Your task to perform on an android device: Go to accessibility settings Image 0: 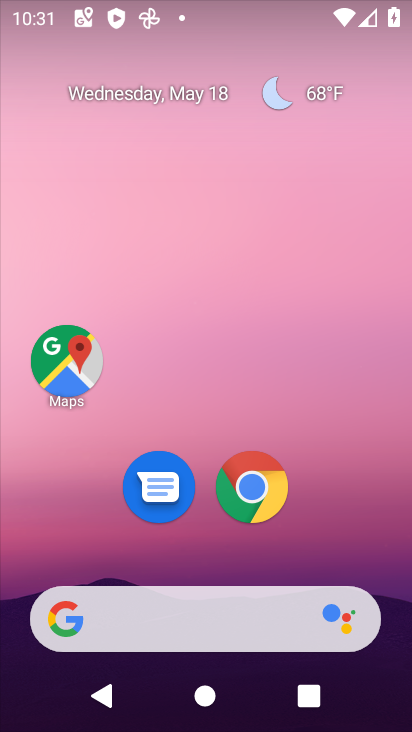
Step 0: drag from (307, 489) to (281, 149)
Your task to perform on an android device: Go to accessibility settings Image 1: 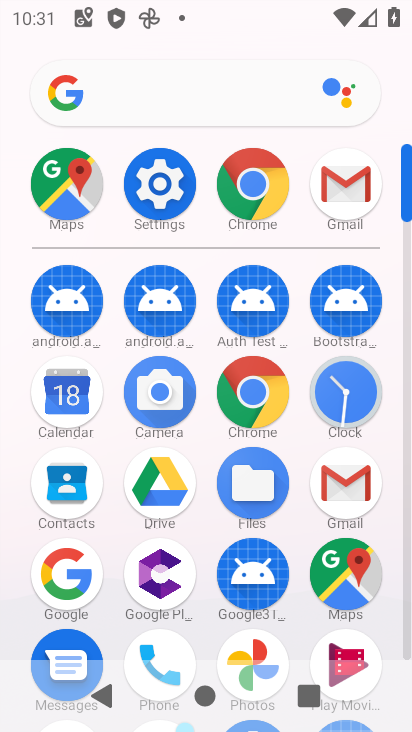
Step 1: drag from (305, 643) to (284, 362)
Your task to perform on an android device: Go to accessibility settings Image 2: 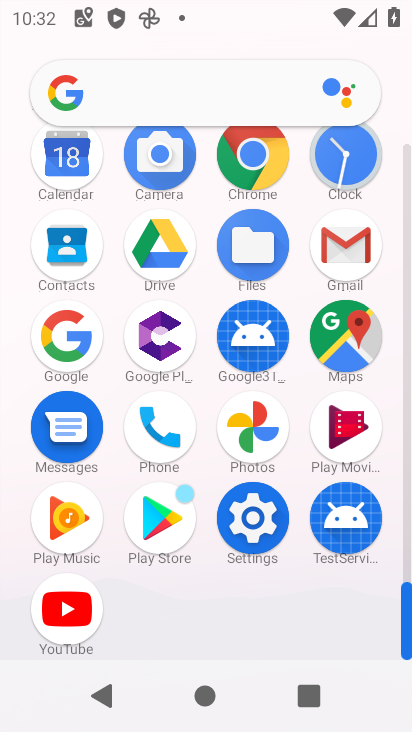
Step 2: click (256, 516)
Your task to perform on an android device: Go to accessibility settings Image 3: 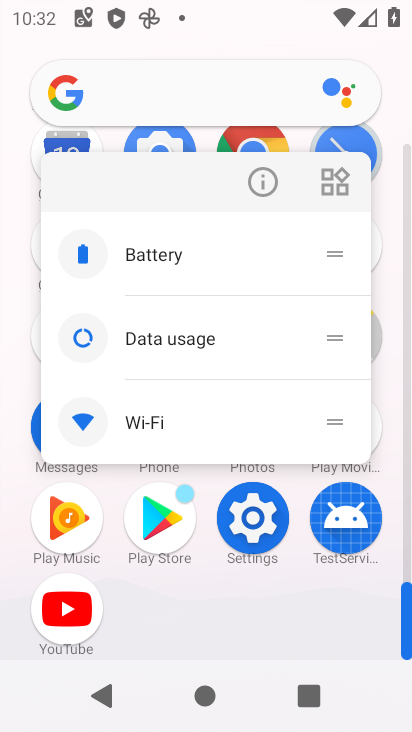
Step 3: click (258, 528)
Your task to perform on an android device: Go to accessibility settings Image 4: 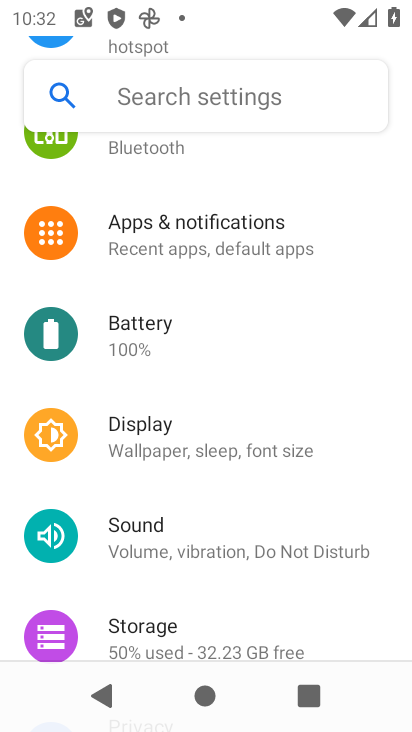
Step 4: click (230, 249)
Your task to perform on an android device: Go to accessibility settings Image 5: 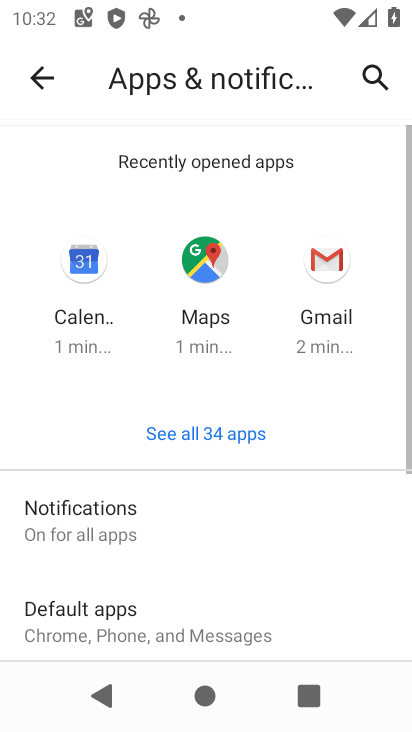
Step 5: drag from (289, 611) to (262, 235)
Your task to perform on an android device: Go to accessibility settings Image 6: 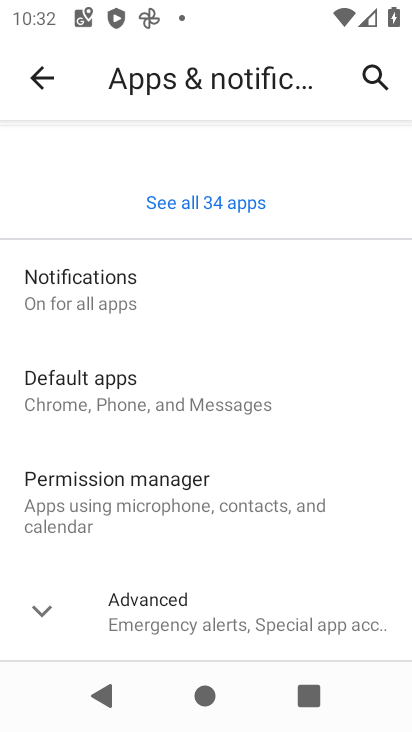
Step 6: click (35, 82)
Your task to perform on an android device: Go to accessibility settings Image 7: 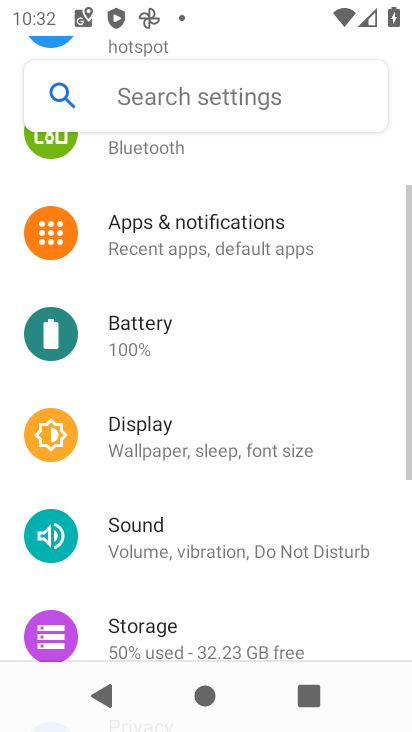
Step 7: drag from (224, 595) to (220, 251)
Your task to perform on an android device: Go to accessibility settings Image 8: 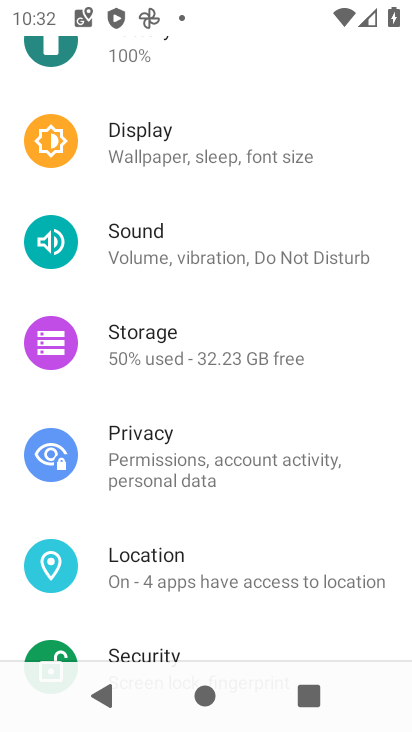
Step 8: drag from (243, 621) to (302, 268)
Your task to perform on an android device: Go to accessibility settings Image 9: 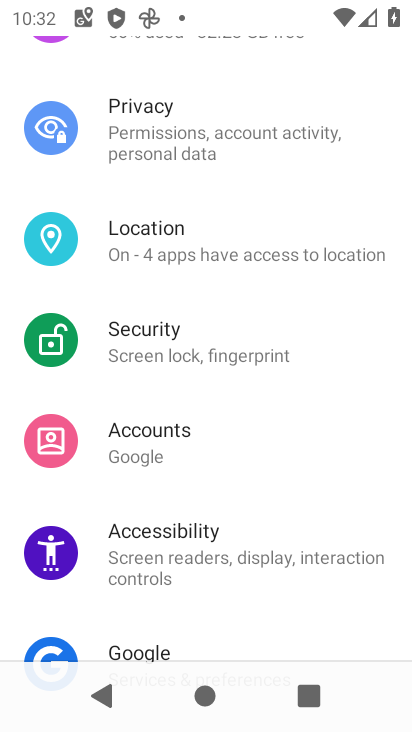
Step 9: click (214, 526)
Your task to perform on an android device: Go to accessibility settings Image 10: 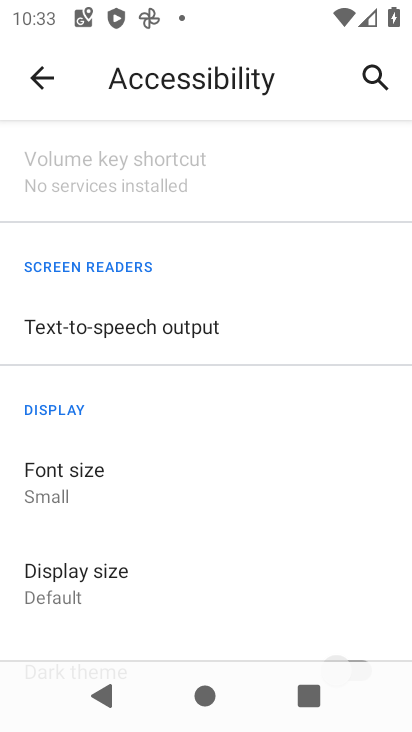
Step 10: task complete